Your task to perform on an android device: Search for pizza restaurants on Maps Image 0: 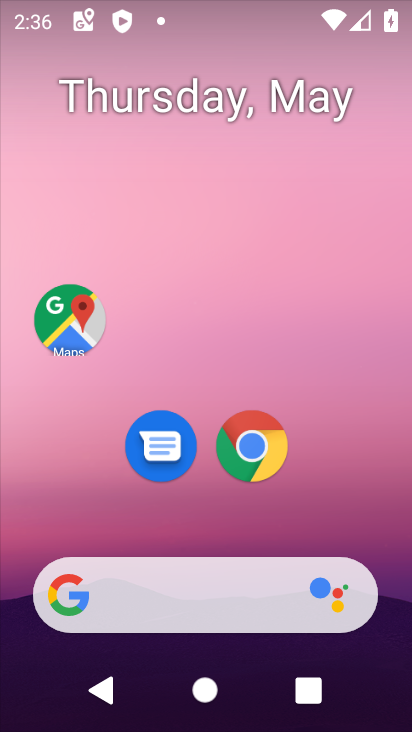
Step 0: click (71, 330)
Your task to perform on an android device: Search for pizza restaurants on Maps Image 1: 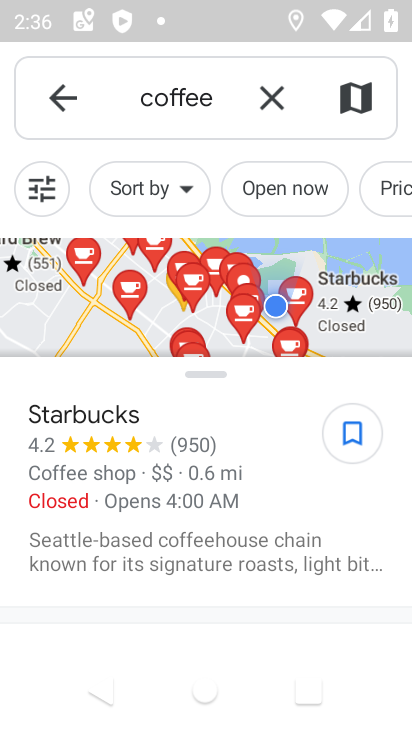
Step 1: click (271, 80)
Your task to perform on an android device: Search for pizza restaurants on Maps Image 2: 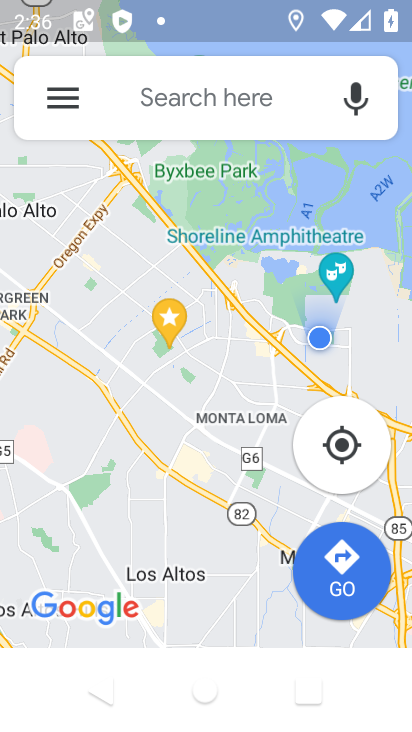
Step 2: click (198, 80)
Your task to perform on an android device: Search for pizza restaurants on Maps Image 3: 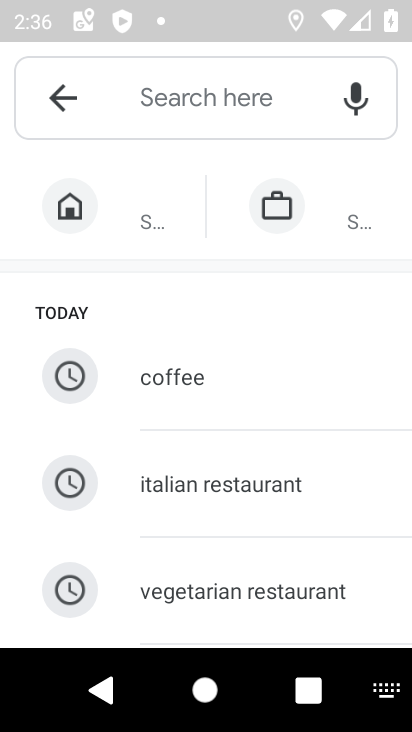
Step 3: type "pizza restaurants"
Your task to perform on an android device: Search for pizza restaurants on Maps Image 4: 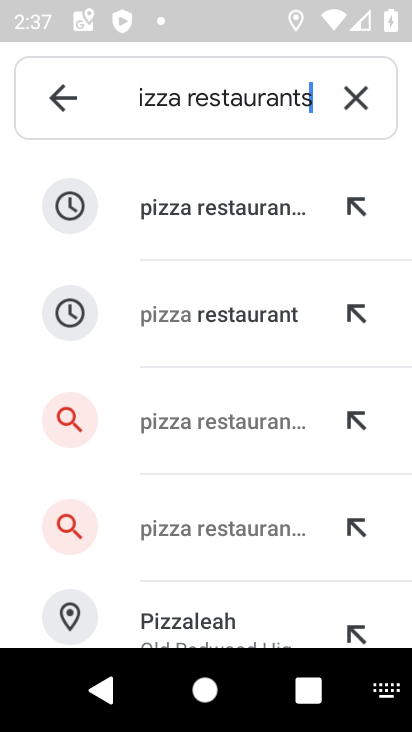
Step 4: click (155, 205)
Your task to perform on an android device: Search for pizza restaurants on Maps Image 5: 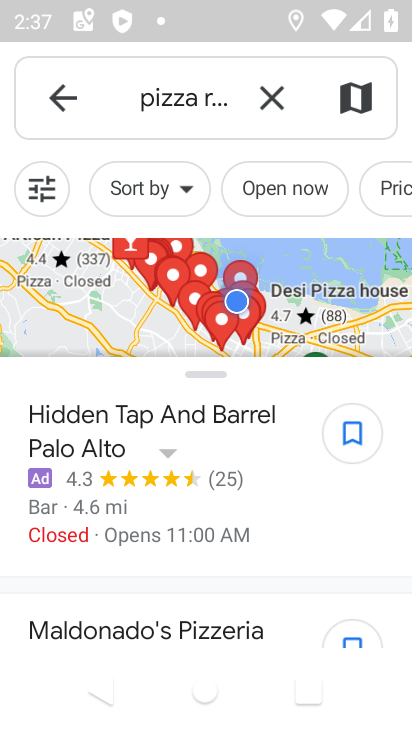
Step 5: task complete